Your task to perform on an android device: set the stopwatch Image 0: 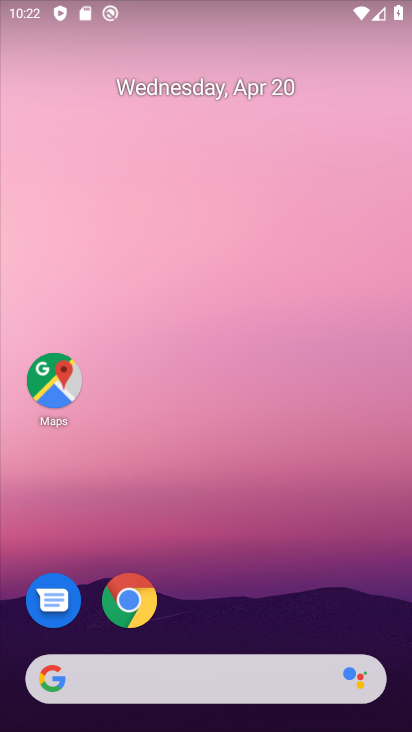
Step 0: drag from (289, 570) to (352, 74)
Your task to perform on an android device: set the stopwatch Image 1: 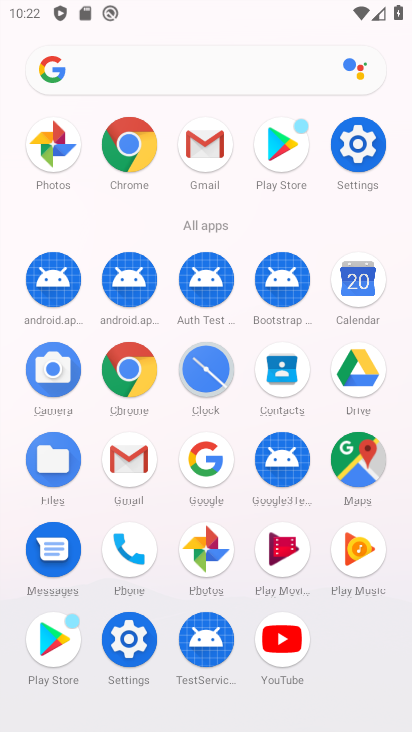
Step 1: click (199, 363)
Your task to perform on an android device: set the stopwatch Image 2: 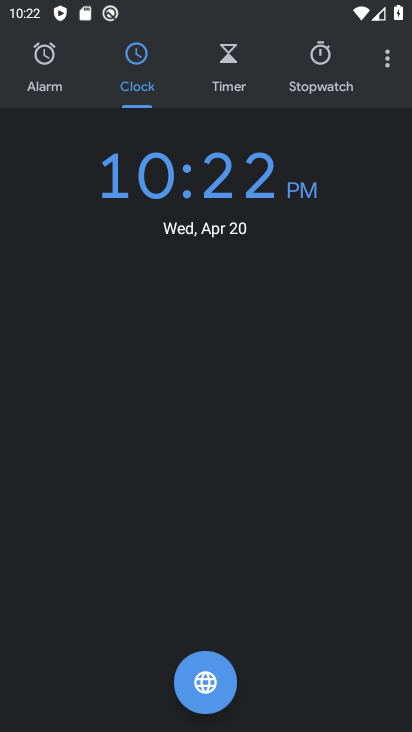
Step 2: click (323, 59)
Your task to perform on an android device: set the stopwatch Image 3: 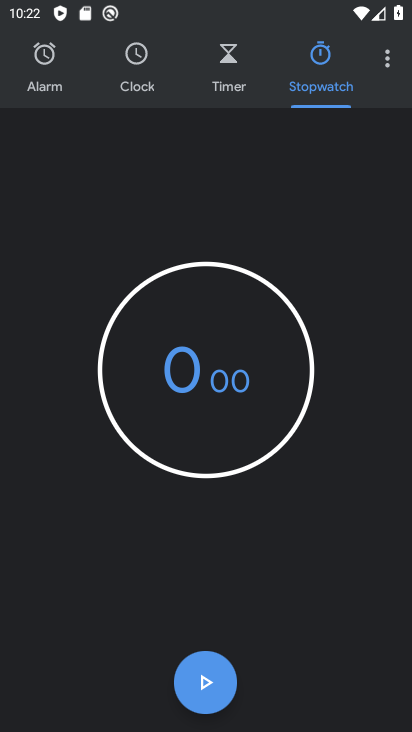
Step 3: click (217, 361)
Your task to perform on an android device: set the stopwatch Image 4: 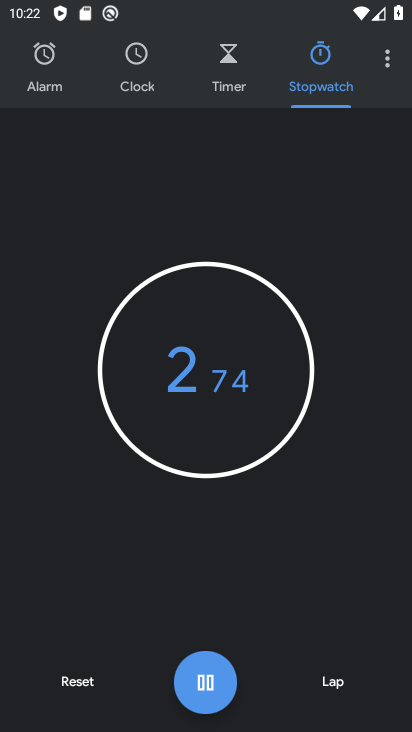
Step 4: click (200, 678)
Your task to perform on an android device: set the stopwatch Image 5: 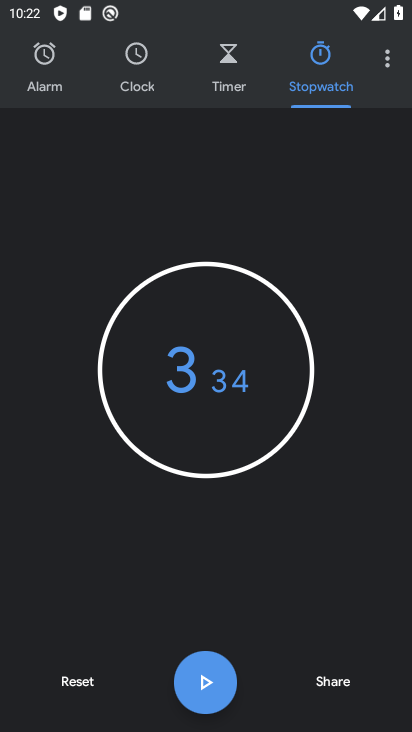
Step 5: task complete